Your task to perform on an android device: Go to notification settings Image 0: 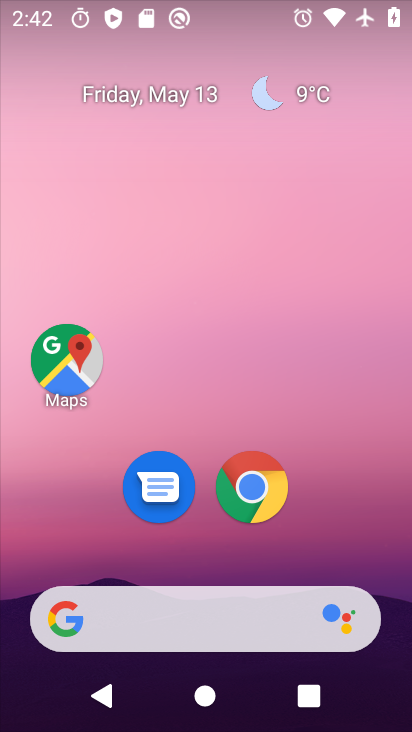
Step 0: drag from (210, 543) to (222, 87)
Your task to perform on an android device: Go to notification settings Image 1: 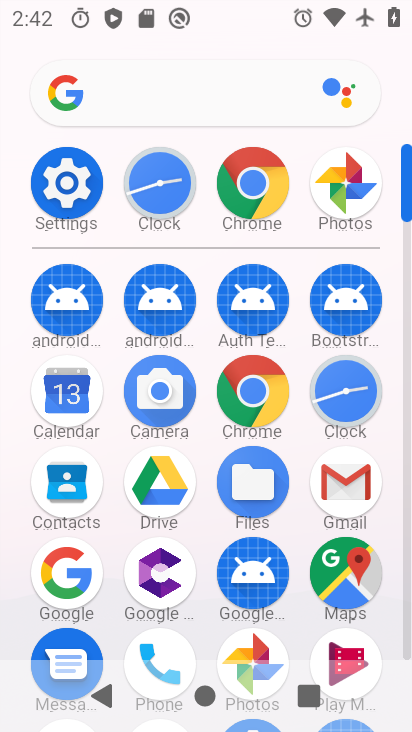
Step 1: click (70, 187)
Your task to perform on an android device: Go to notification settings Image 2: 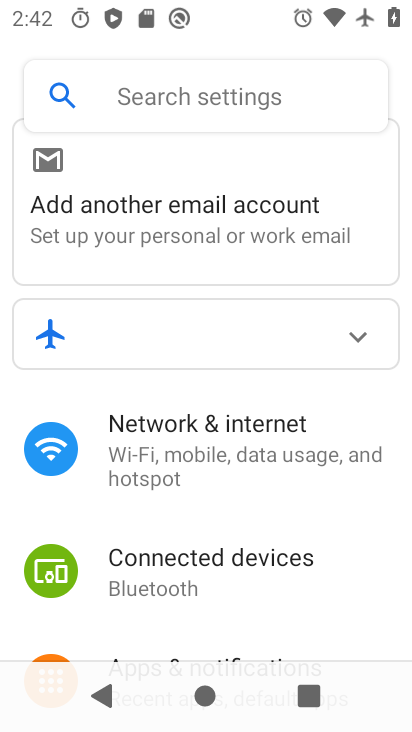
Step 2: drag from (185, 623) to (196, 326)
Your task to perform on an android device: Go to notification settings Image 3: 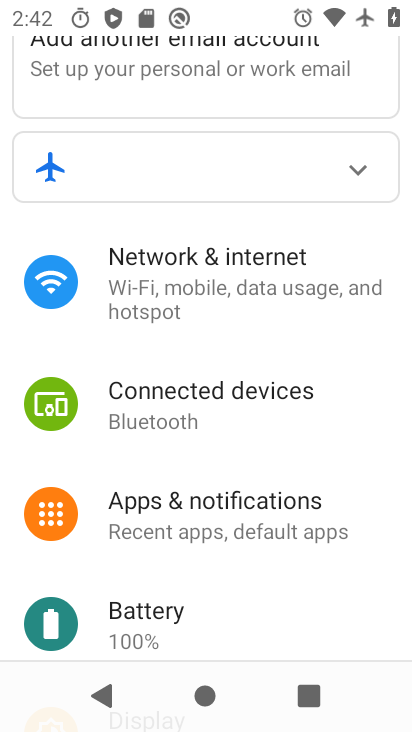
Step 3: click (199, 517)
Your task to perform on an android device: Go to notification settings Image 4: 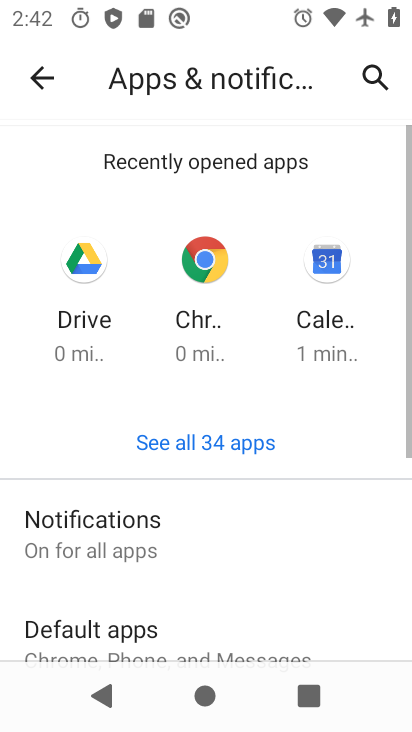
Step 4: click (115, 551)
Your task to perform on an android device: Go to notification settings Image 5: 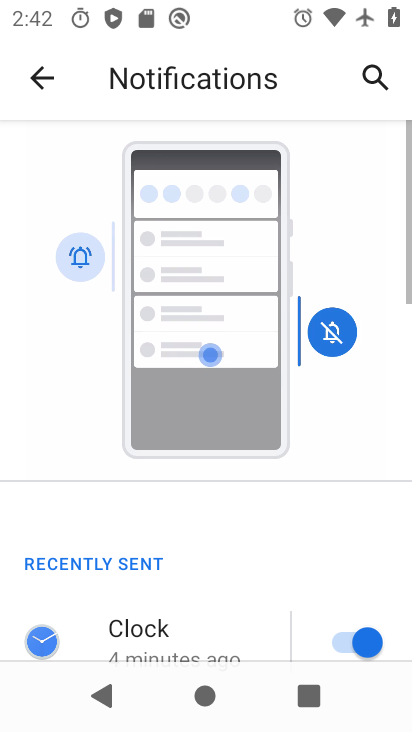
Step 5: task complete